Your task to perform on an android device: Do I have any events tomorrow? Image 0: 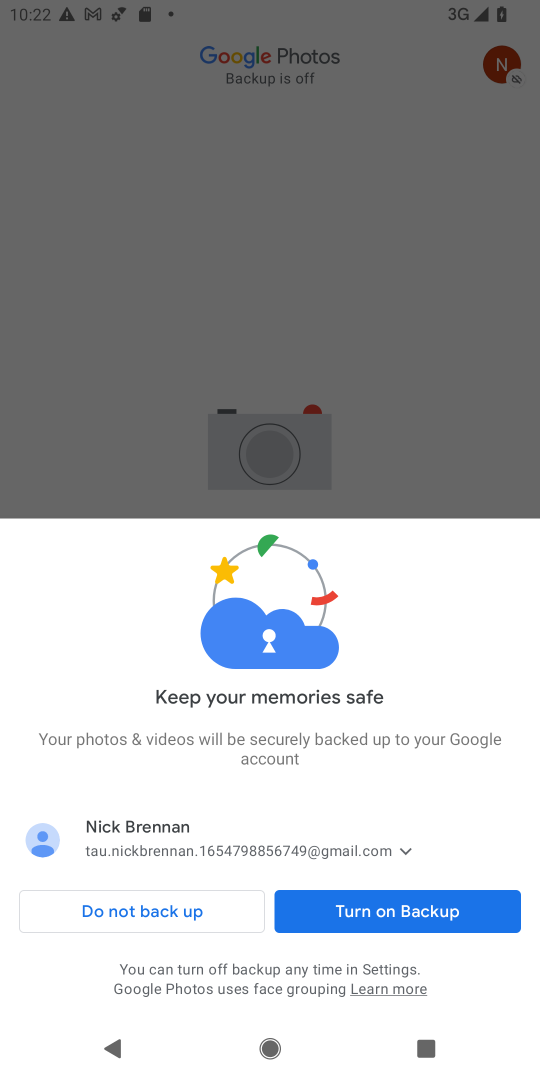
Step 0: press home button
Your task to perform on an android device: Do I have any events tomorrow? Image 1: 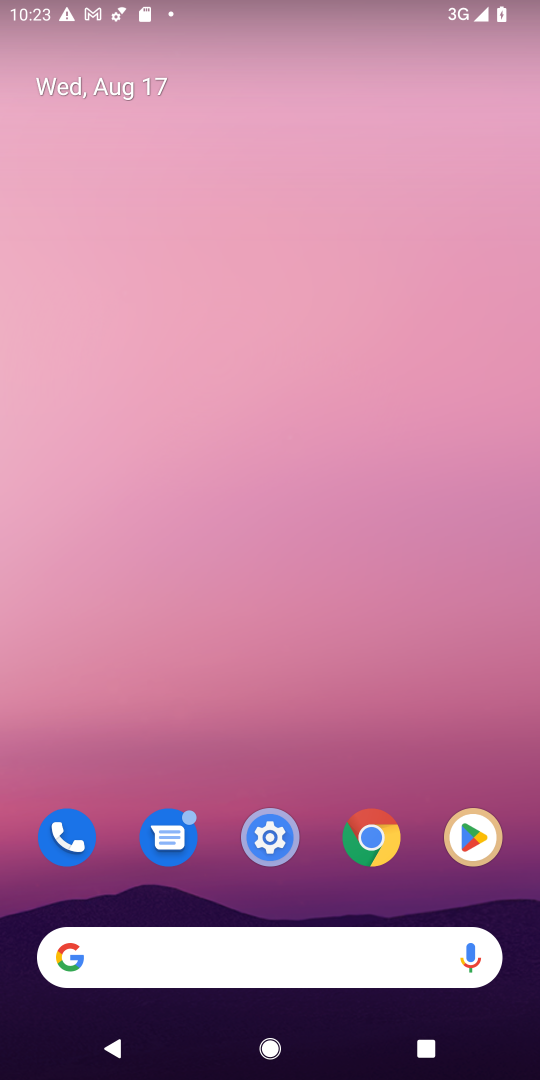
Step 1: drag from (218, 954) to (303, 213)
Your task to perform on an android device: Do I have any events tomorrow? Image 2: 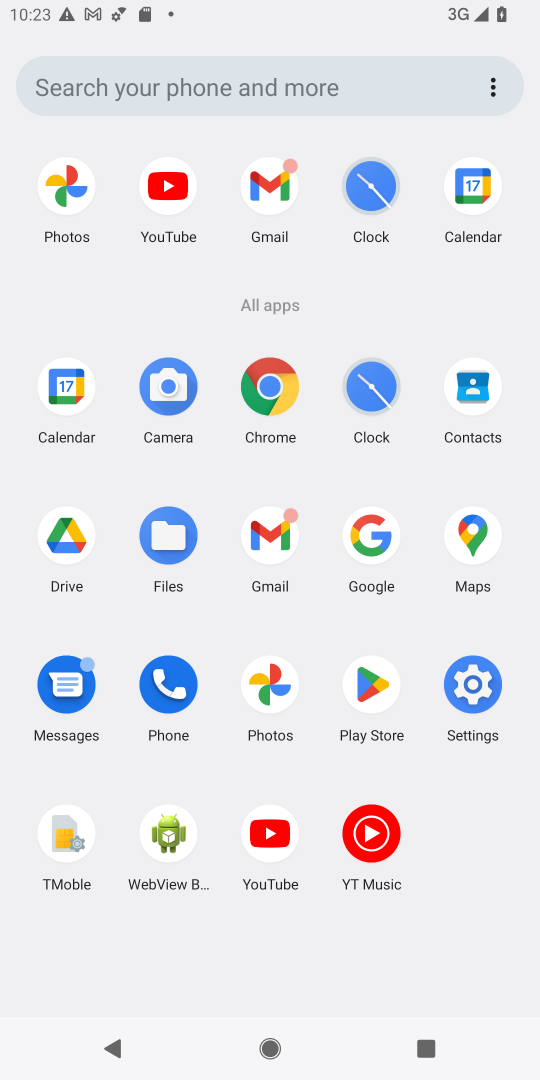
Step 2: click (469, 192)
Your task to perform on an android device: Do I have any events tomorrow? Image 3: 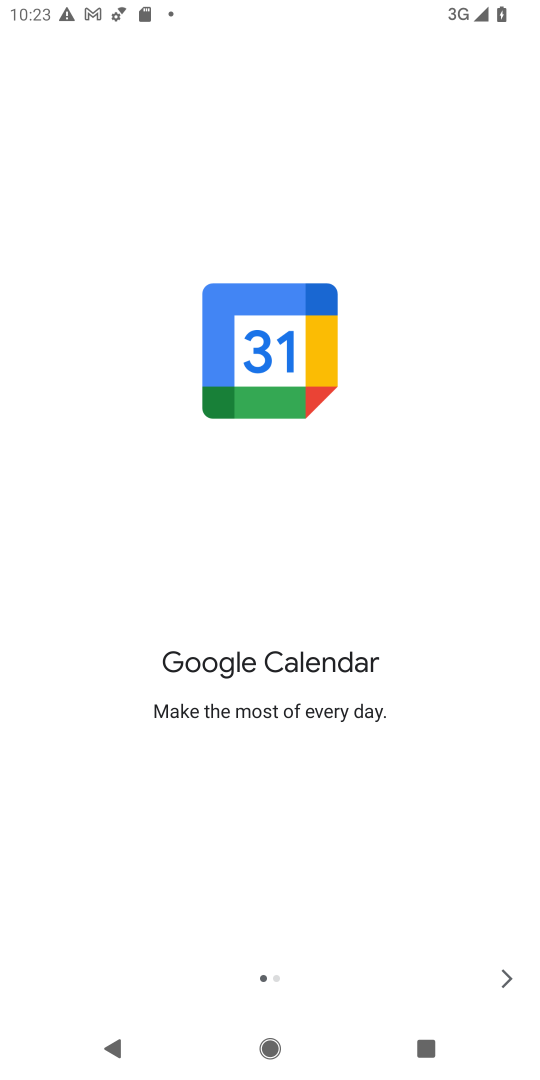
Step 3: click (508, 981)
Your task to perform on an android device: Do I have any events tomorrow? Image 4: 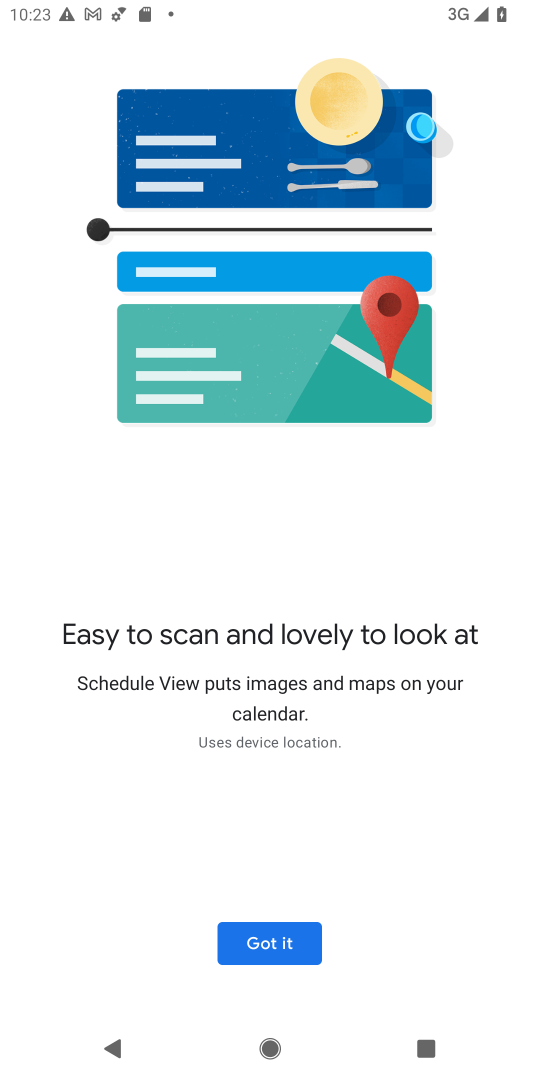
Step 4: click (277, 948)
Your task to perform on an android device: Do I have any events tomorrow? Image 5: 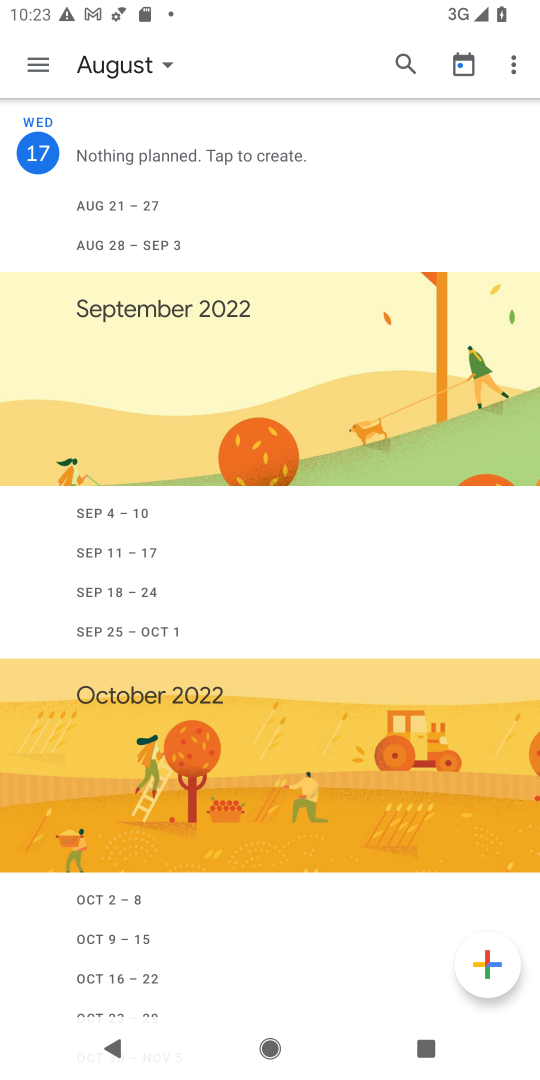
Step 5: click (164, 69)
Your task to perform on an android device: Do I have any events tomorrow? Image 6: 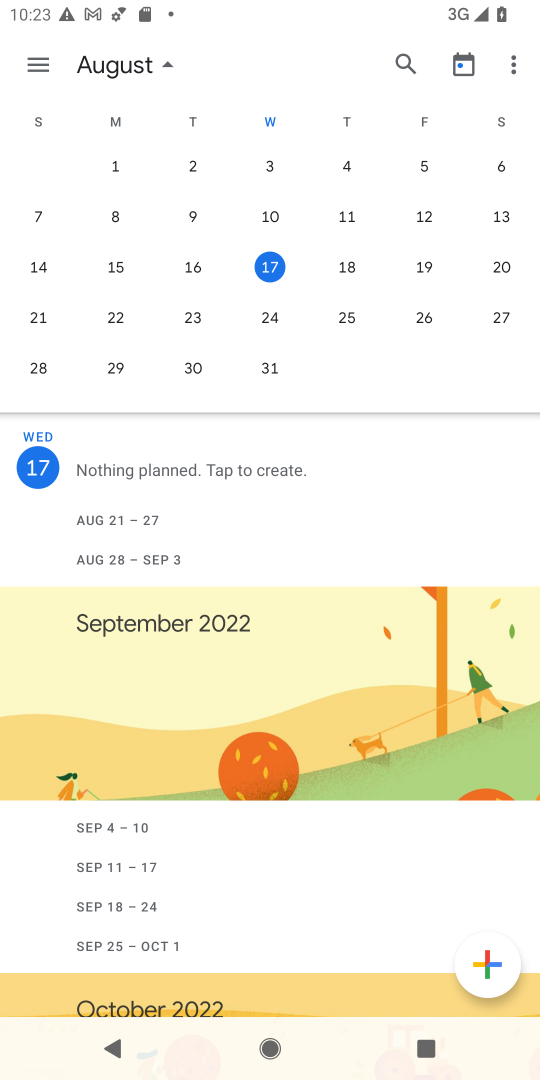
Step 6: click (349, 267)
Your task to perform on an android device: Do I have any events tomorrow? Image 7: 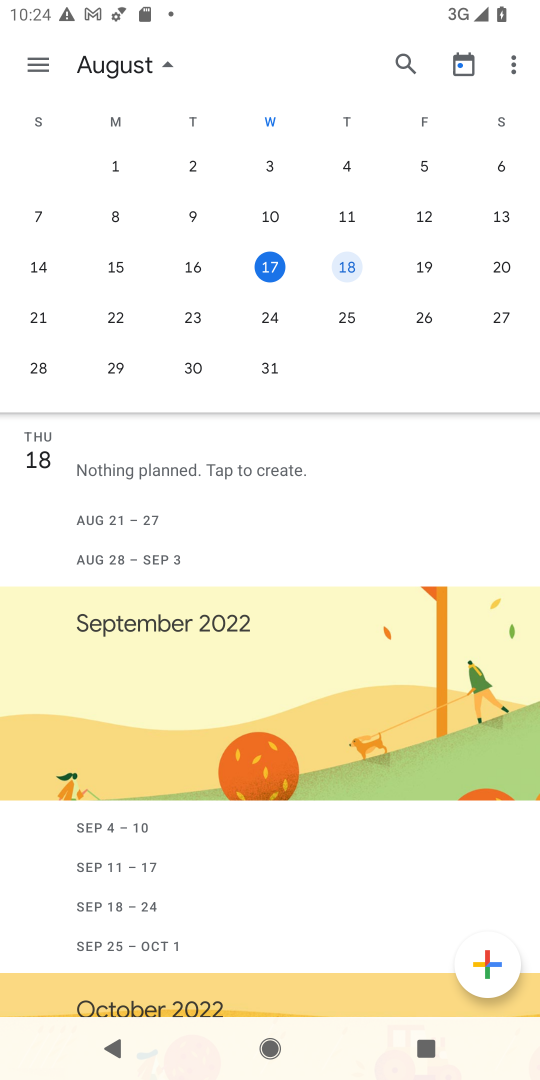
Step 7: click (32, 70)
Your task to perform on an android device: Do I have any events tomorrow? Image 8: 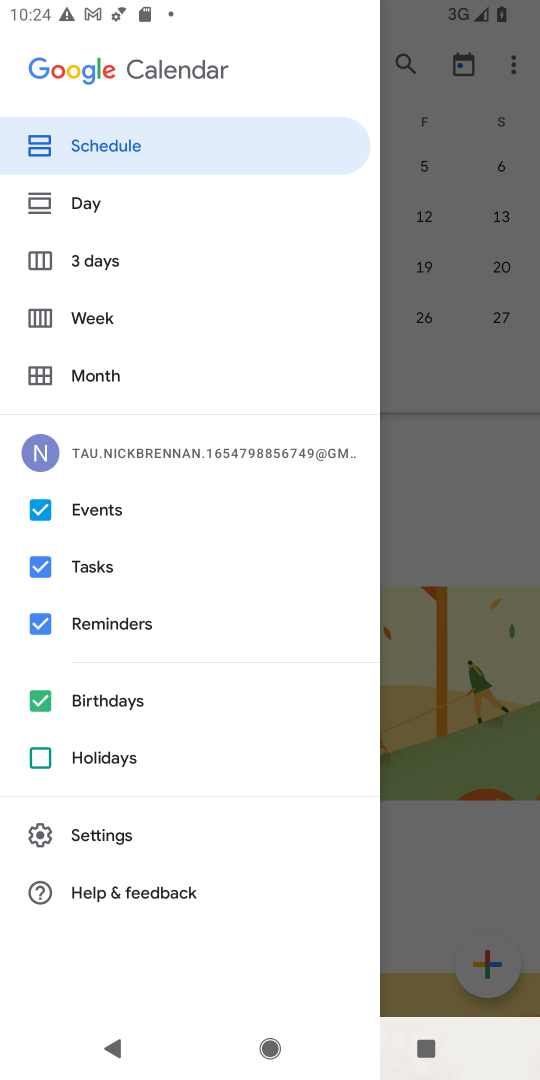
Step 8: click (116, 144)
Your task to perform on an android device: Do I have any events tomorrow? Image 9: 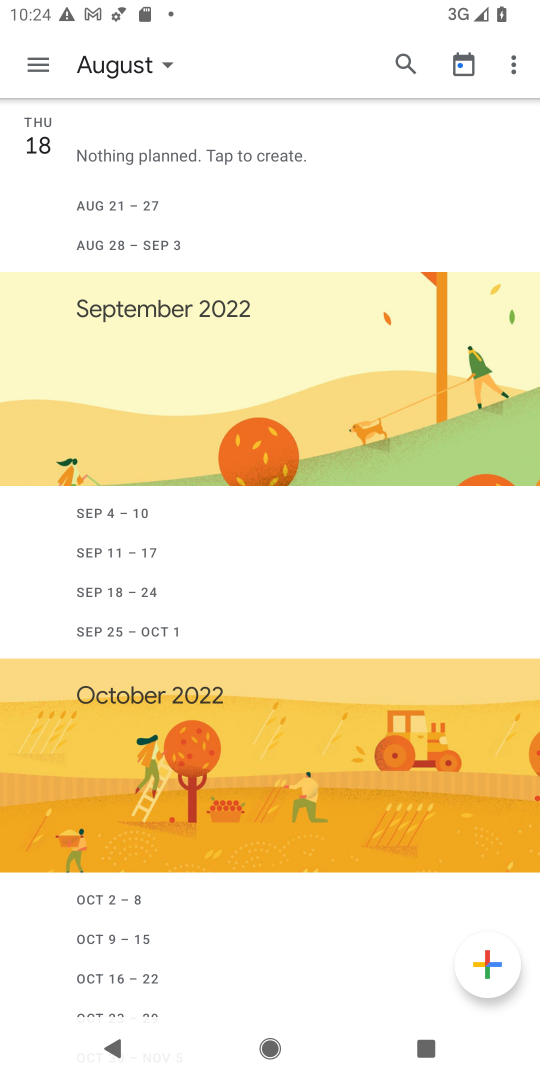
Step 9: task complete